Your task to perform on an android device: Open Chrome and go to the settings page Image 0: 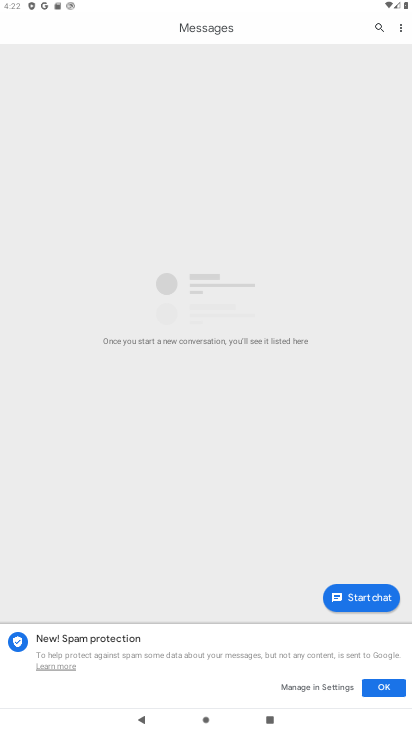
Step 0: press home button
Your task to perform on an android device: Open Chrome and go to the settings page Image 1: 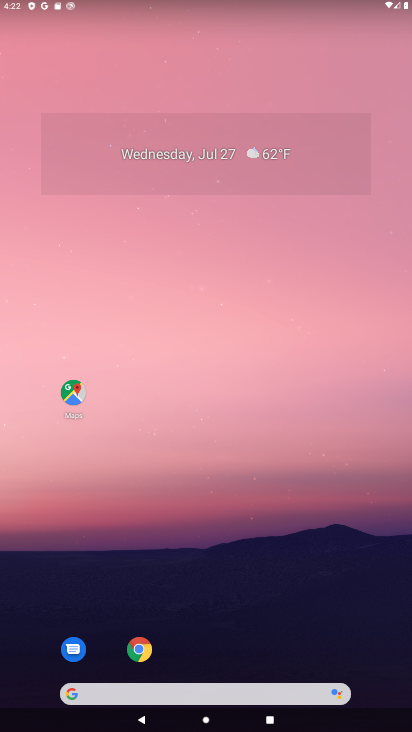
Step 1: drag from (260, 553) to (278, 290)
Your task to perform on an android device: Open Chrome and go to the settings page Image 2: 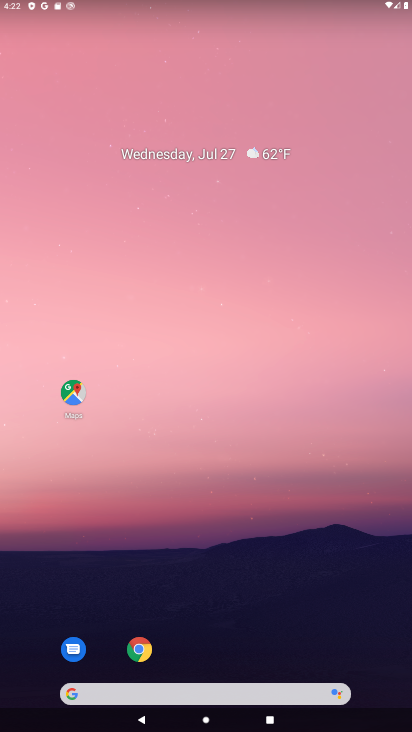
Step 2: drag from (259, 547) to (297, 83)
Your task to perform on an android device: Open Chrome and go to the settings page Image 3: 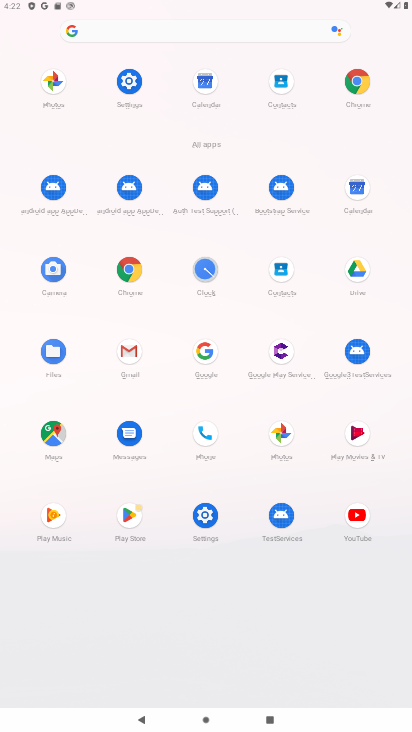
Step 3: click (198, 514)
Your task to perform on an android device: Open Chrome and go to the settings page Image 4: 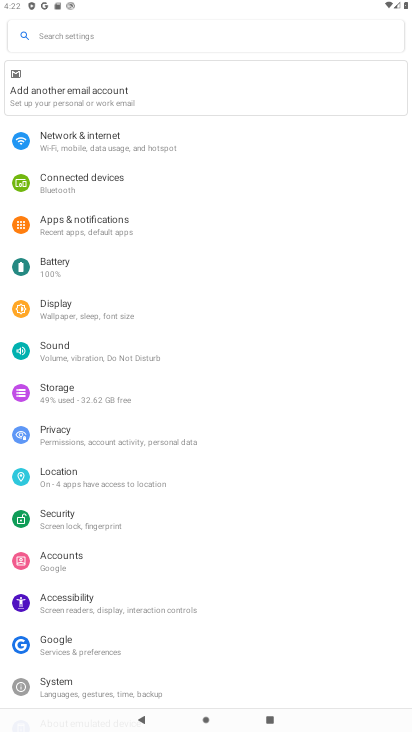
Step 4: task complete